Your task to perform on an android device: Open Wikipedia Image 0: 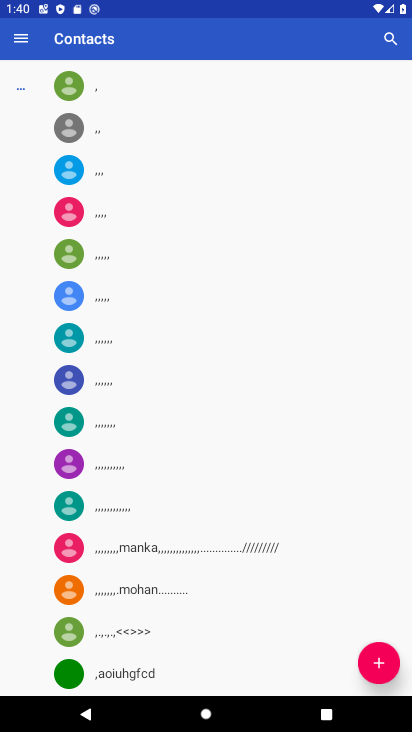
Step 0: press home button
Your task to perform on an android device: Open Wikipedia Image 1: 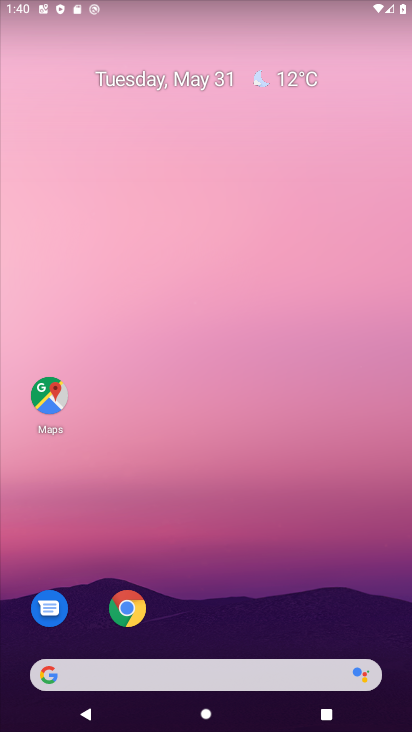
Step 1: drag from (336, 602) to (273, 143)
Your task to perform on an android device: Open Wikipedia Image 2: 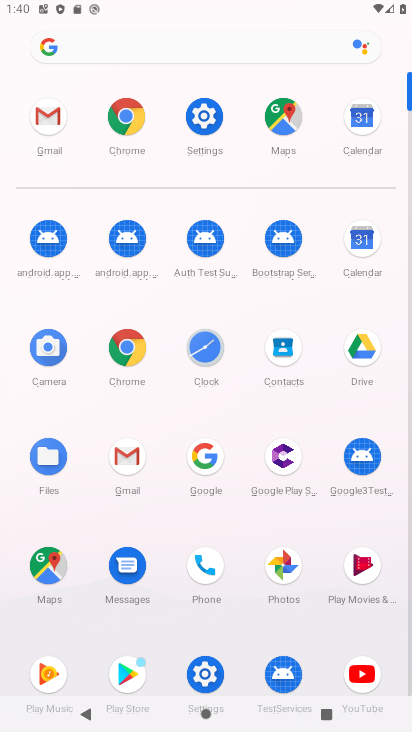
Step 2: drag from (238, 604) to (238, 387)
Your task to perform on an android device: Open Wikipedia Image 3: 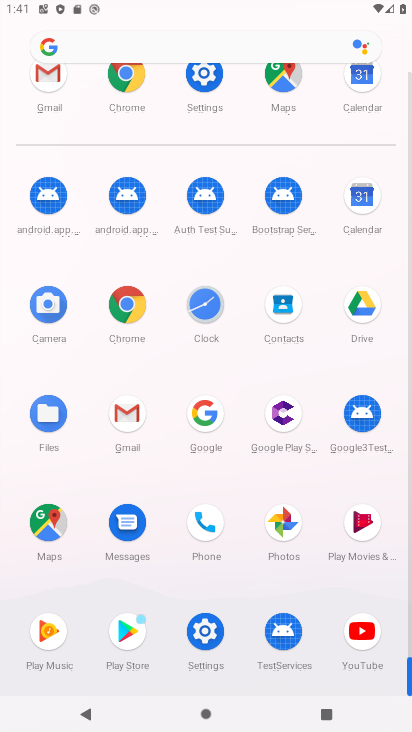
Step 3: click (114, 326)
Your task to perform on an android device: Open Wikipedia Image 4: 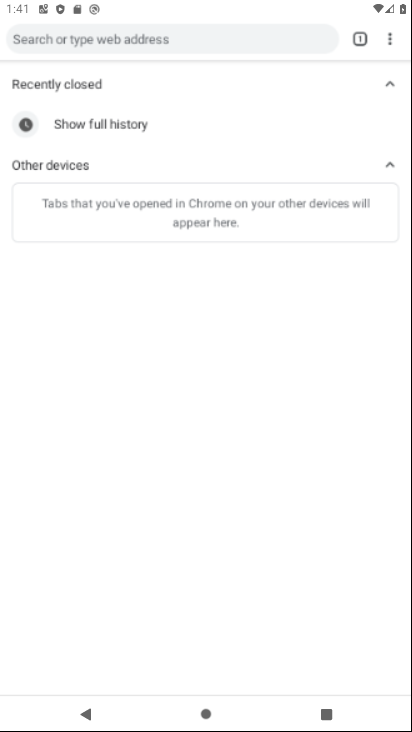
Step 4: click (131, 36)
Your task to perform on an android device: Open Wikipedia Image 5: 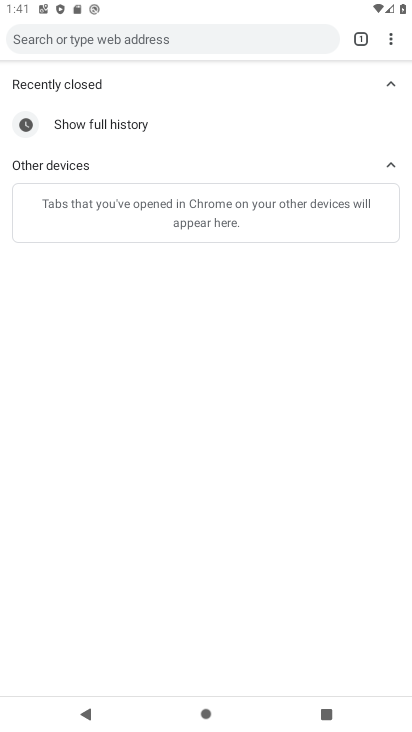
Step 5: click (173, 36)
Your task to perform on an android device: Open Wikipedia Image 6: 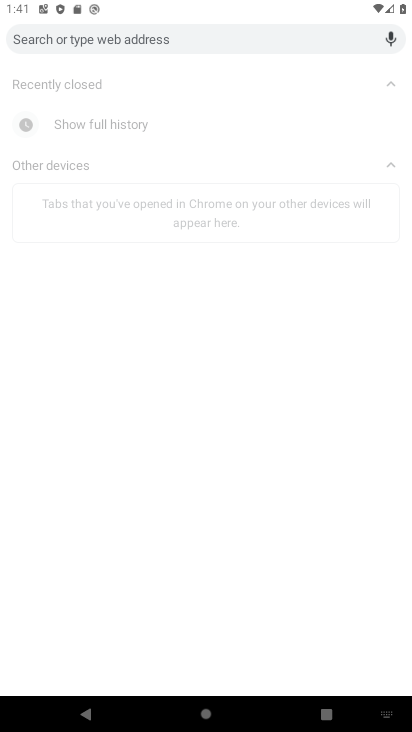
Step 6: type "wikipedia "
Your task to perform on an android device: Open Wikipedia Image 7: 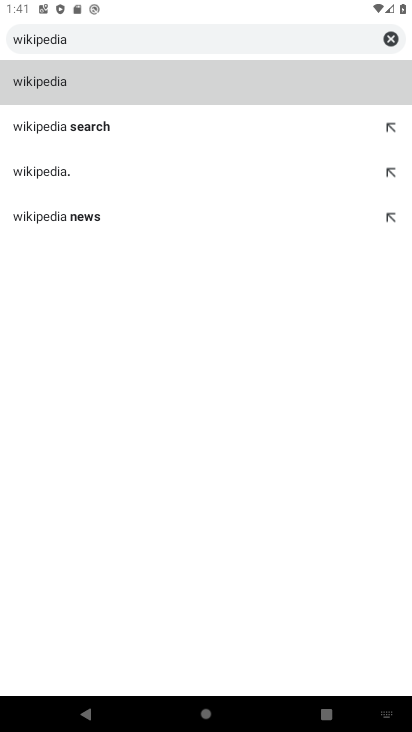
Step 7: click (100, 89)
Your task to perform on an android device: Open Wikipedia Image 8: 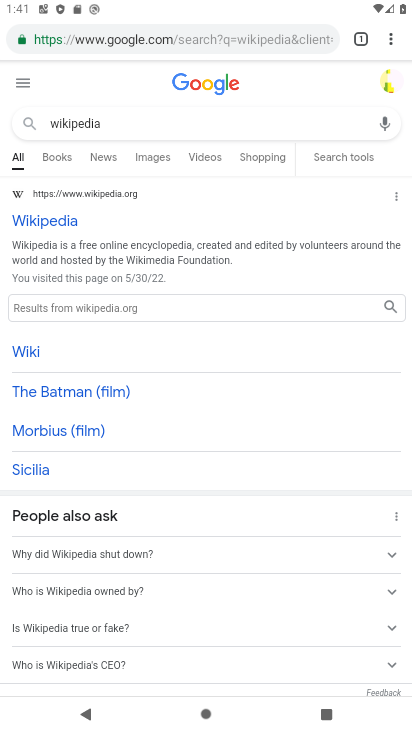
Step 8: click (76, 216)
Your task to perform on an android device: Open Wikipedia Image 9: 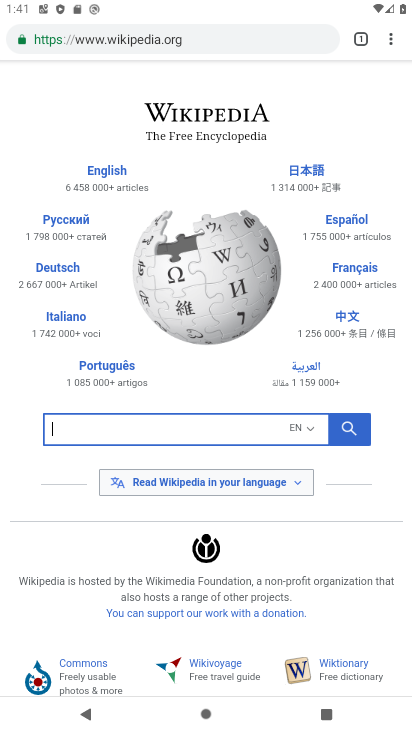
Step 9: task complete